Your task to perform on an android device: See recent photos Image 0: 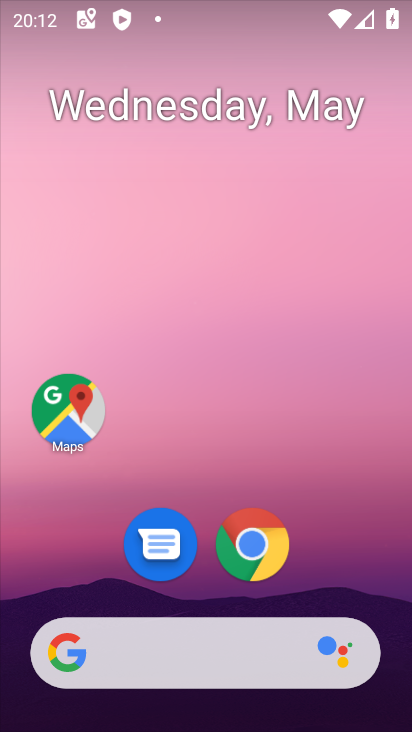
Step 0: drag from (190, 596) to (226, 189)
Your task to perform on an android device: See recent photos Image 1: 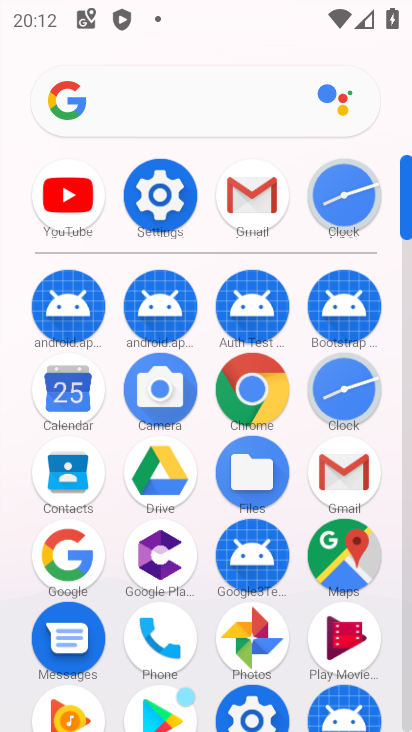
Step 1: click (249, 646)
Your task to perform on an android device: See recent photos Image 2: 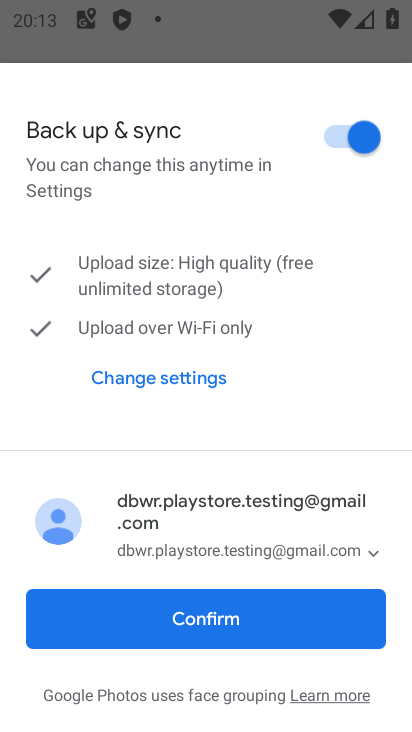
Step 2: click (249, 646)
Your task to perform on an android device: See recent photos Image 3: 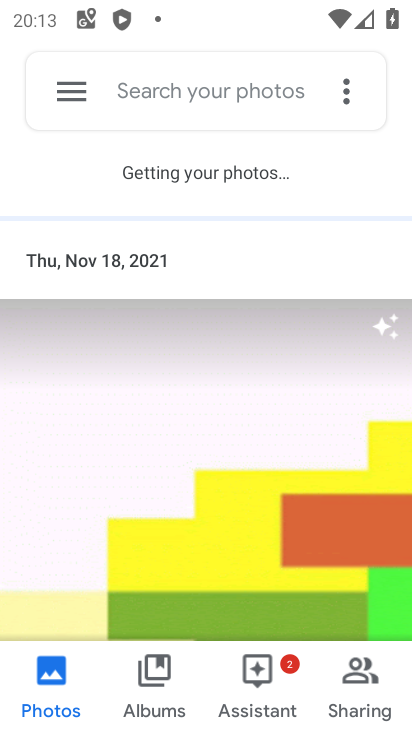
Step 3: task complete